Your task to perform on an android device: Go to notification settings Image 0: 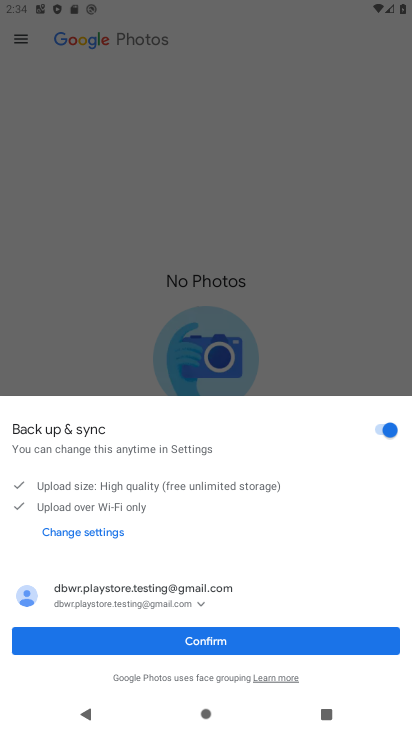
Step 0: press home button
Your task to perform on an android device: Go to notification settings Image 1: 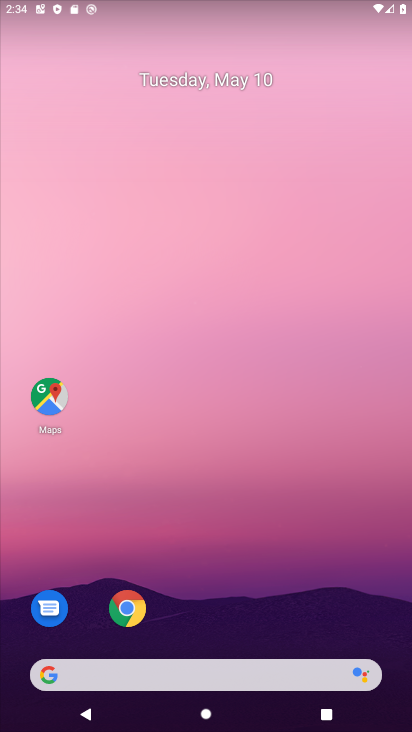
Step 1: drag from (201, 624) to (321, 78)
Your task to perform on an android device: Go to notification settings Image 2: 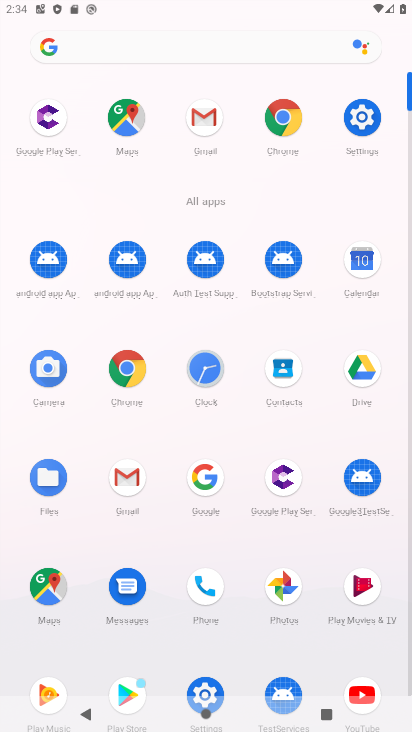
Step 2: click (372, 126)
Your task to perform on an android device: Go to notification settings Image 3: 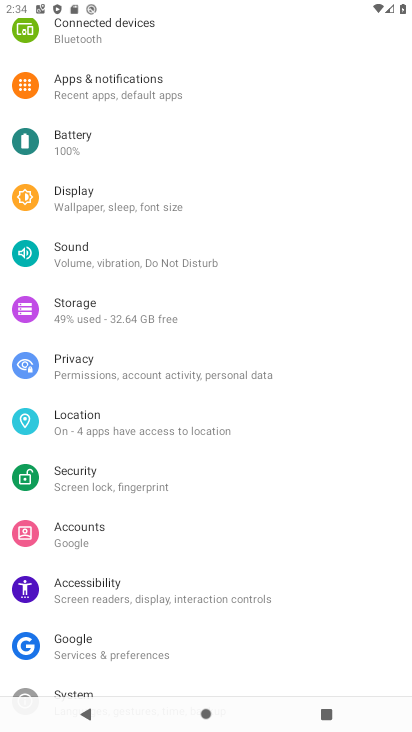
Step 3: click (166, 94)
Your task to perform on an android device: Go to notification settings Image 4: 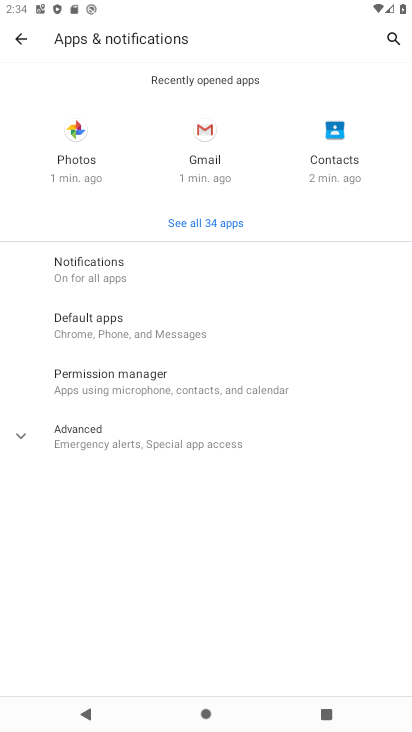
Step 4: click (101, 262)
Your task to perform on an android device: Go to notification settings Image 5: 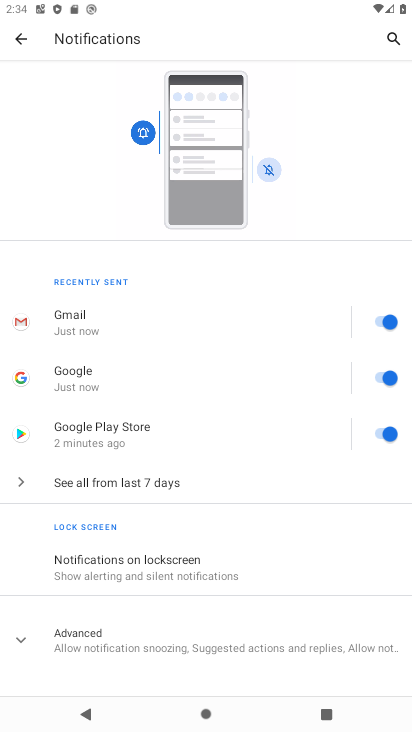
Step 5: task complete